Your task to perform on an android device: toggle sleep mode Image 0: 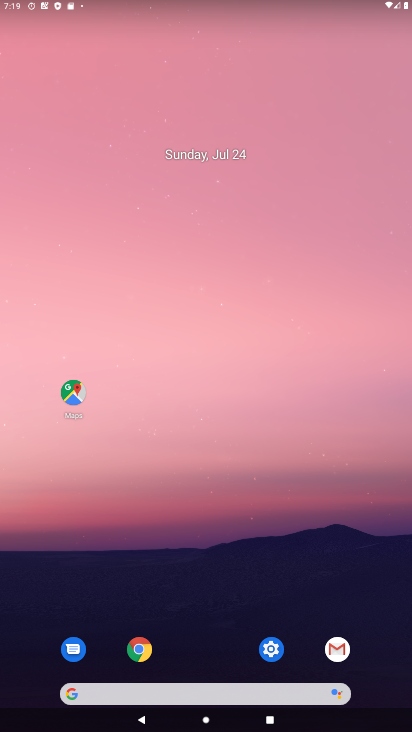
Step 0: click (274, 654)
Your task to perform on an android device: toggle sleep mode Image 1: 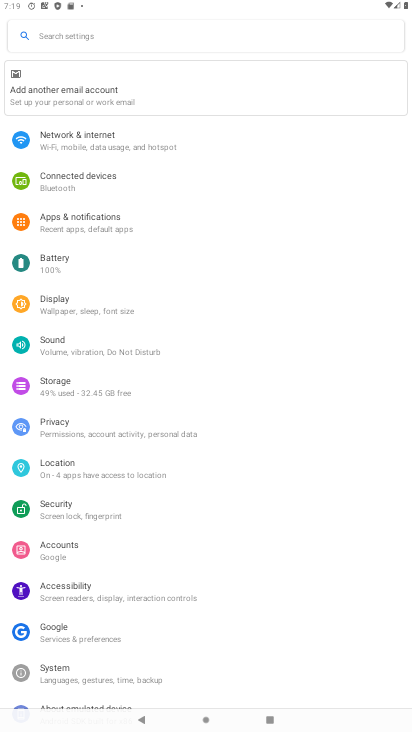
Step 1: click (57, 34)
Your task to perform on an android device: toggle sleep mode Image 2: 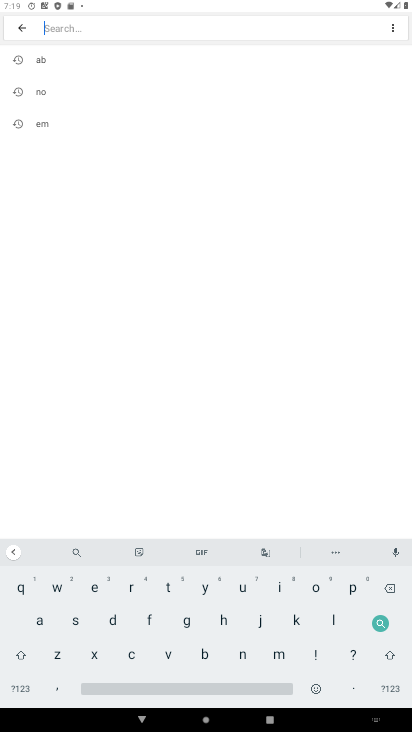
Step 2: click (77, 620)
Your task to perform on an android device: toggle sleep mode Image 3: 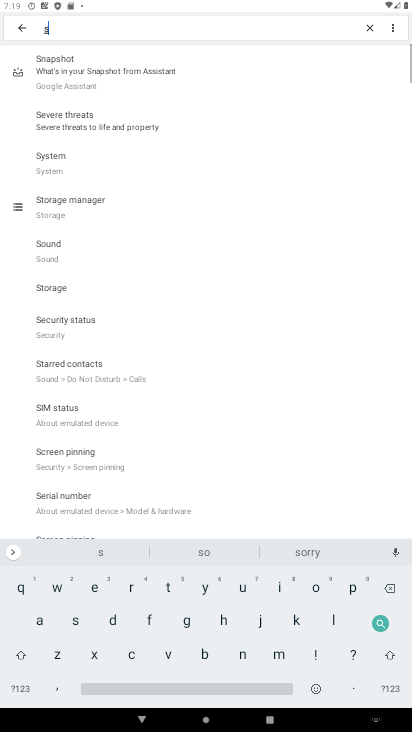
Step 3: click (334, 614)
Your task to perform on an android device: toggle sleep mode Image 4: 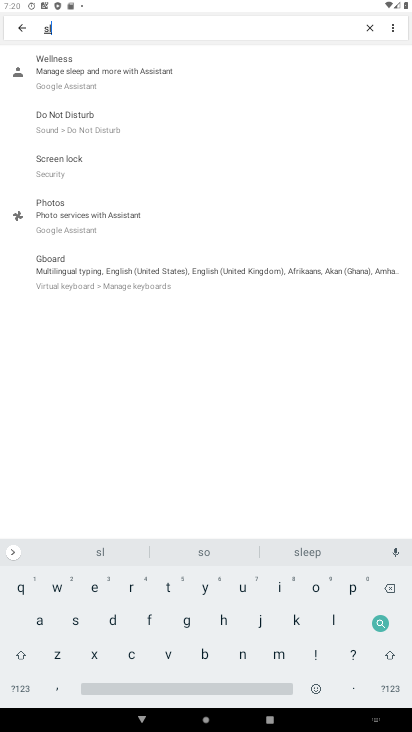
Step 4: click (70, 111)
Your task to perform on an android device: toggle sleep mode Image 5: 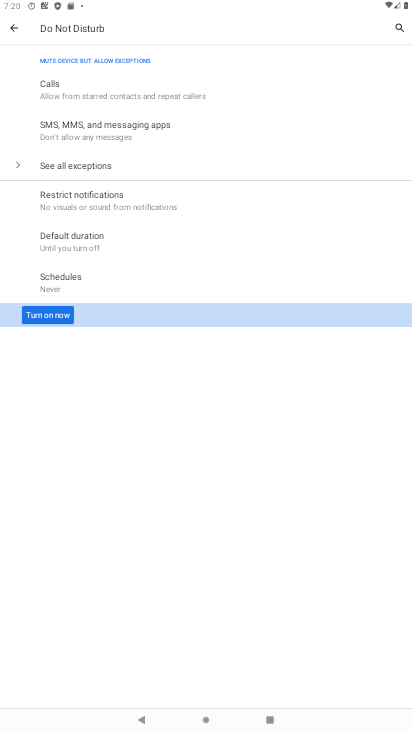
Step 5: task complete